Your task to perform on an android device: read, delete, or share a saved page in the chrome app Image 0: 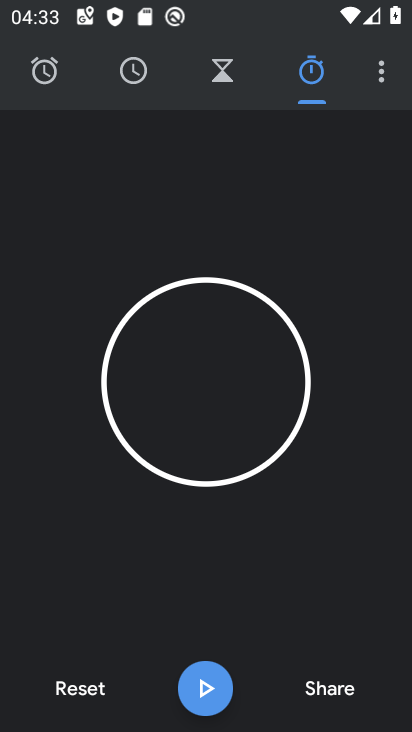
Step 0: press back button
Your task to perform on an android device: read, delete, or share a saved page in the chrome app Image 1: 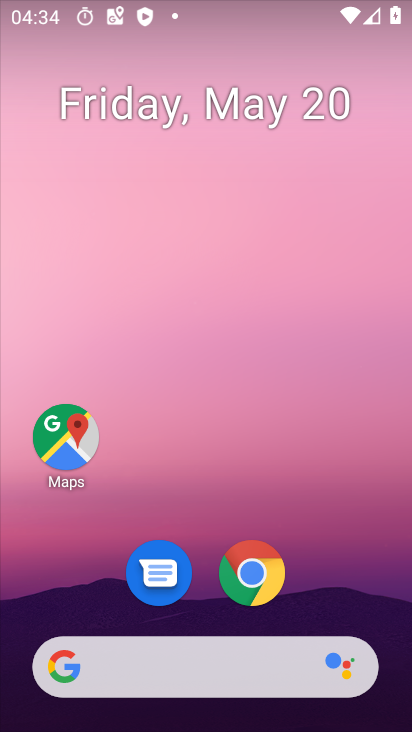
Step 1: press home button
Your task to perform on an android device: read, delete, or share a saved page in the chrome app Image 2: 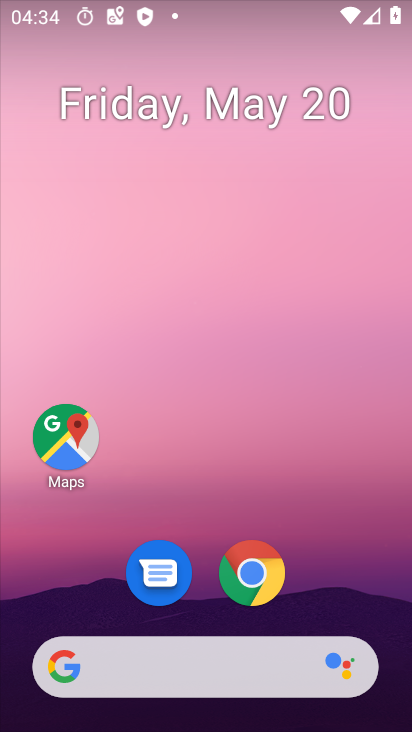
Step 2: drag from (360, 653) to (202, 6)
Your task to perform on an android device: read, delete, or share a saved page in the chrome app Image 3: 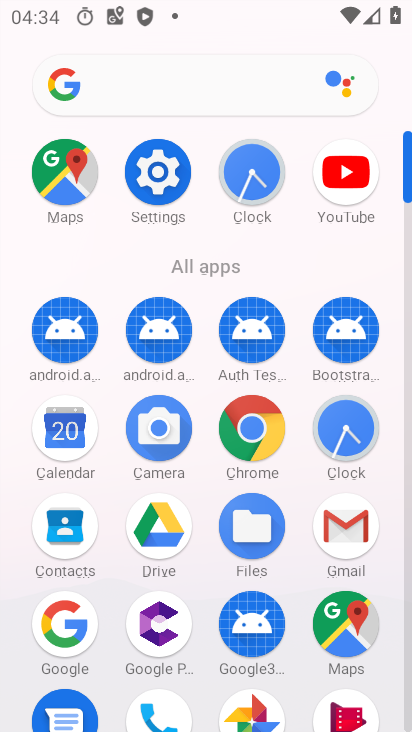
Step 3: click (246, 438)
Your task to perform on an android device: read, delete, or share a saved page in the chrome app Image 4: 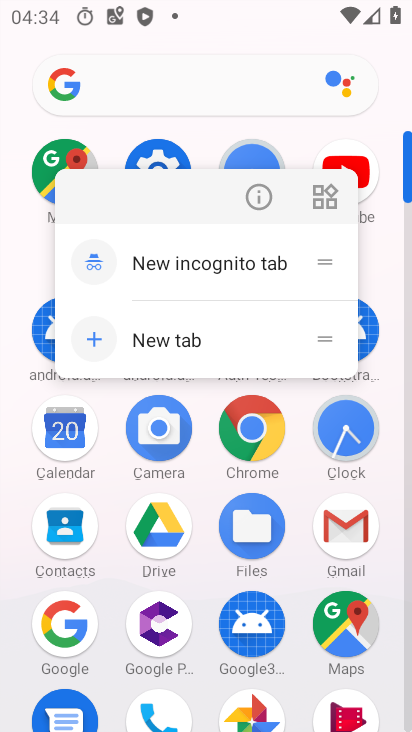
Step 4: click (247, 434)
Your task to perform on an android device: read, delete, or share a saved page in the chrome app Image 5: 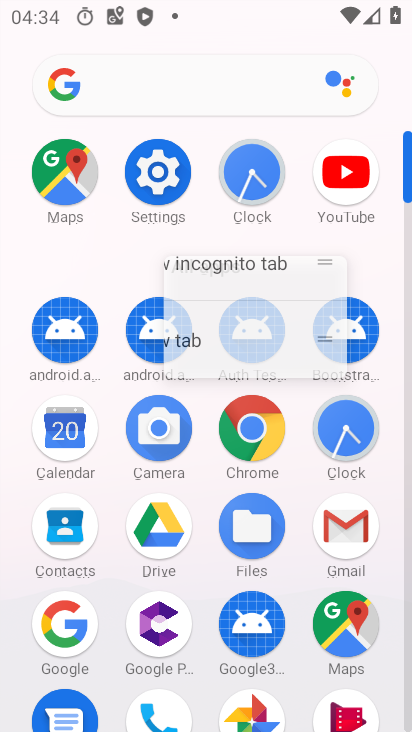
Step 5: click (247, 434)
Your task to perform on an android device: read, delete, or share a saved page in the chrome app Image 6: 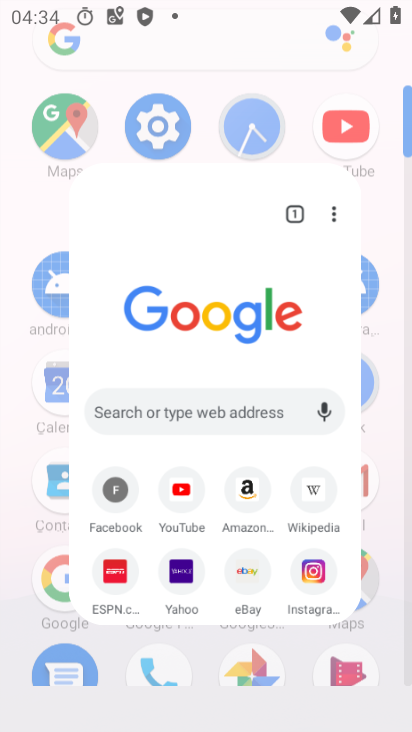
Step 6: click (247, 434)
Your task to perform on an android device: read, delete, or share a saved page in the chrome app Image 7: 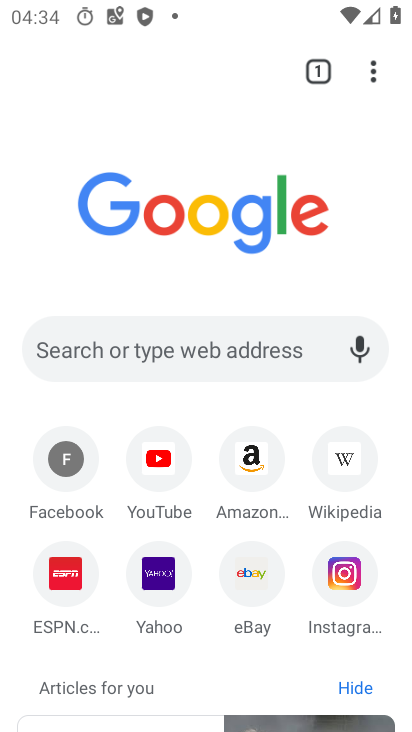
Step 7: drag from (372, 73) to (96, 468)
Your task to perform on an android device: read, delete, or share a saved page in the chrome app Image 8: 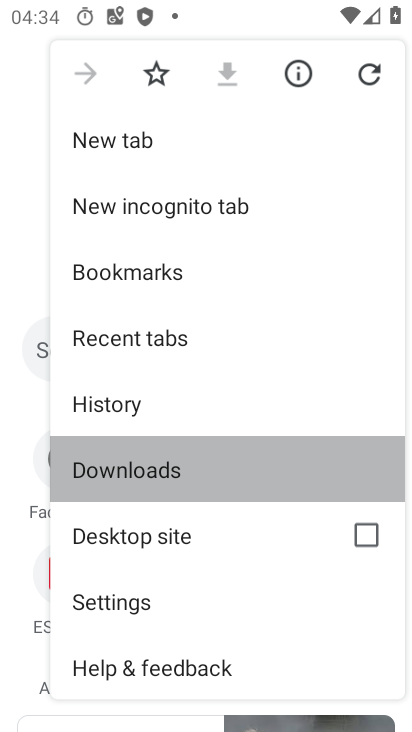
Step 8: click (98, 466)
Your task to perform on an android device: read, delete, or share a saved page in the chrome app Image 9: 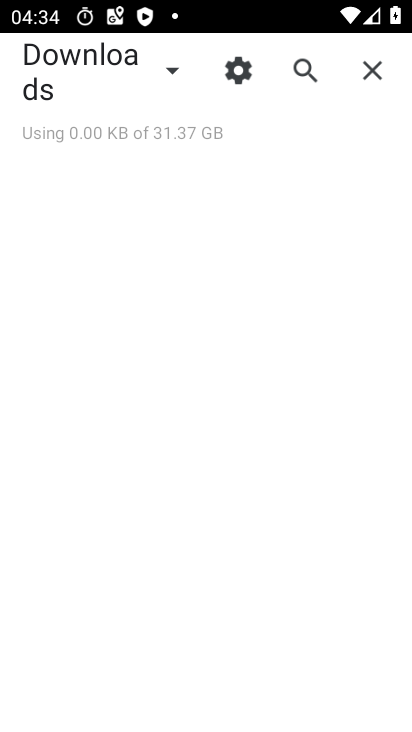
Step 9: task complete